Your task to perform on an android device: Is it going to rain today? Image 0: 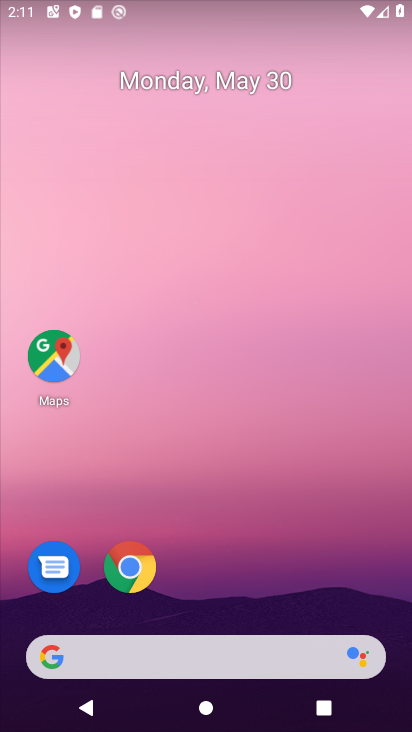
Step 0: drag from (196, 561) to (212, 598)
Your task to perform on an android device: Is it going to rain today? Image 1: 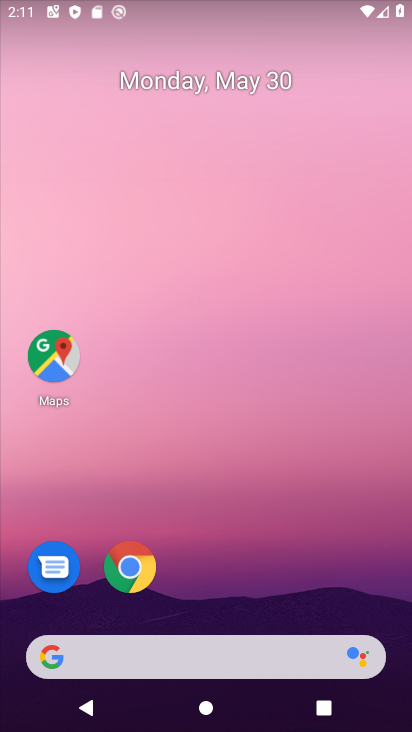
Step 1: click (164, 661)
Your task to perform on an android device: Is it going to rain today? Image 2: 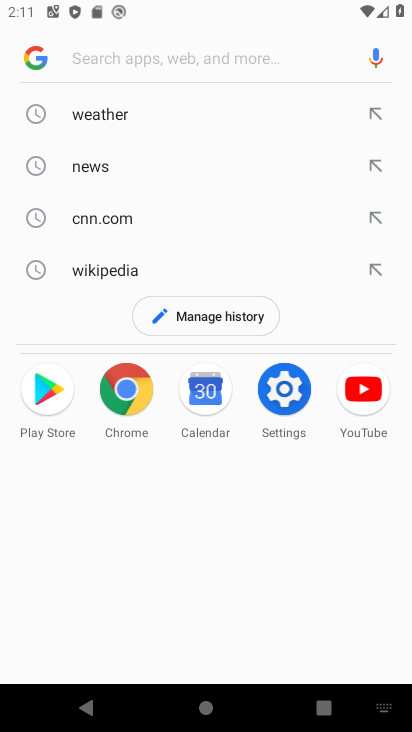
Step 2: click (33, 58)
Your task to perform on an android device: Is it going to rain today? Image 3: 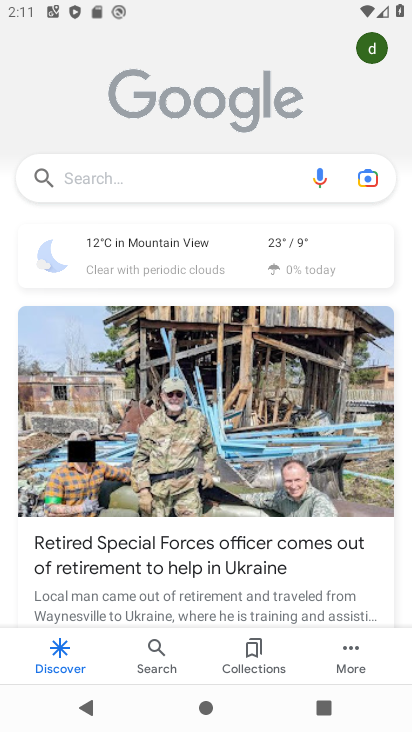
Step 3: click (159, 179)
Your task to perform on an android device: Is it going to rain today? Image 4: 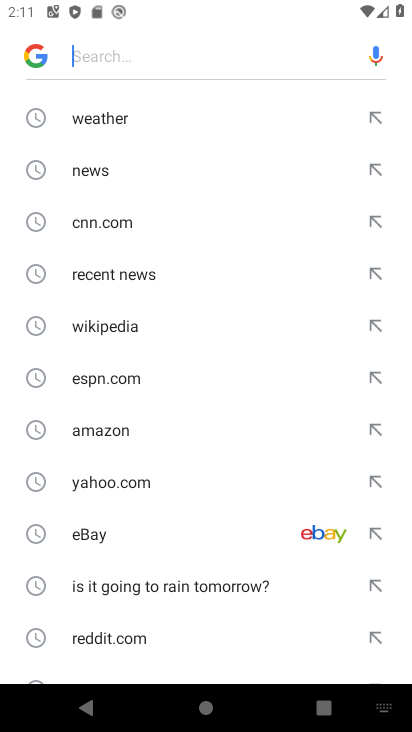
Step 4: click (103, 117)
Your task to perform on an android device: Is it going to rain today? Image 5: 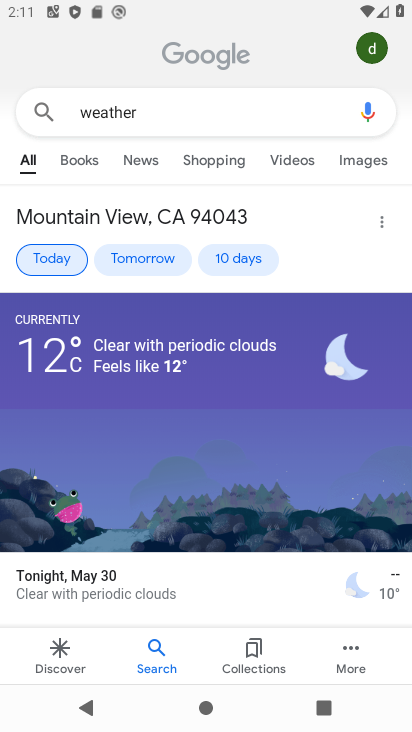
Step 5: task complete